Your task to perform on an android device: Look up the best rated desk lamps on IKEA Image 0: 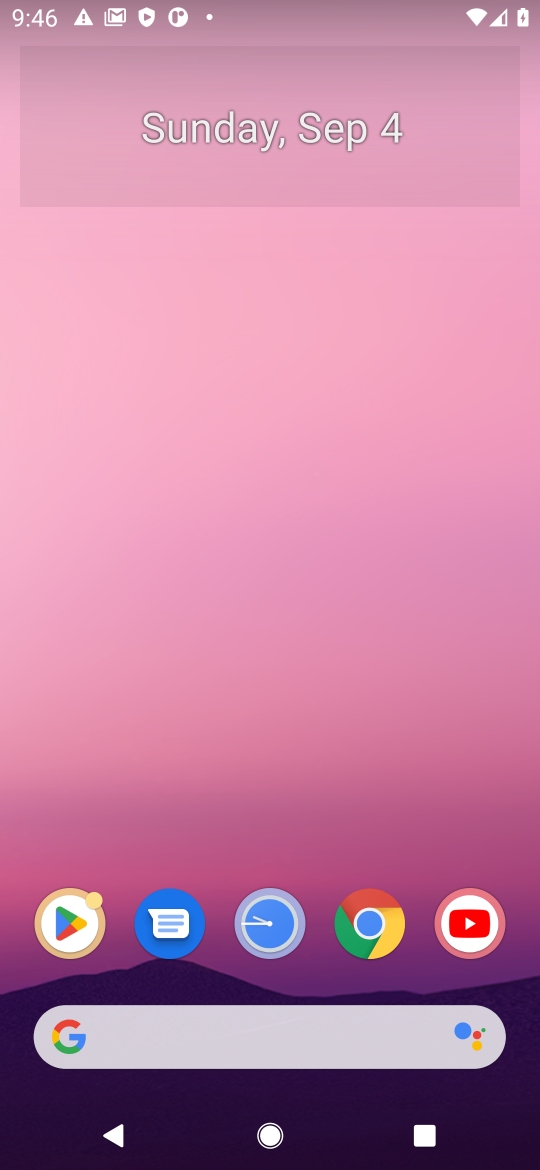
Step 0: click (348, 1036)
Your task to perform on an android device: Look up the best rated desk lamps on IKEA Image 1: 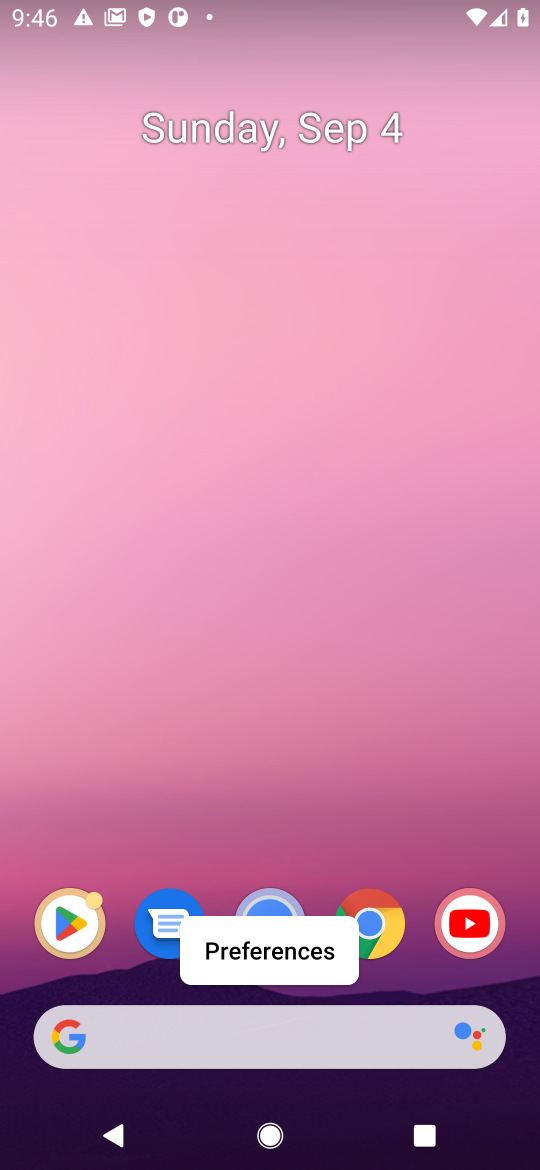
Step 1: click (364, 1029)
Your task to perform on an android device: Look up the best rated desk lamps on IKEA Image 2: 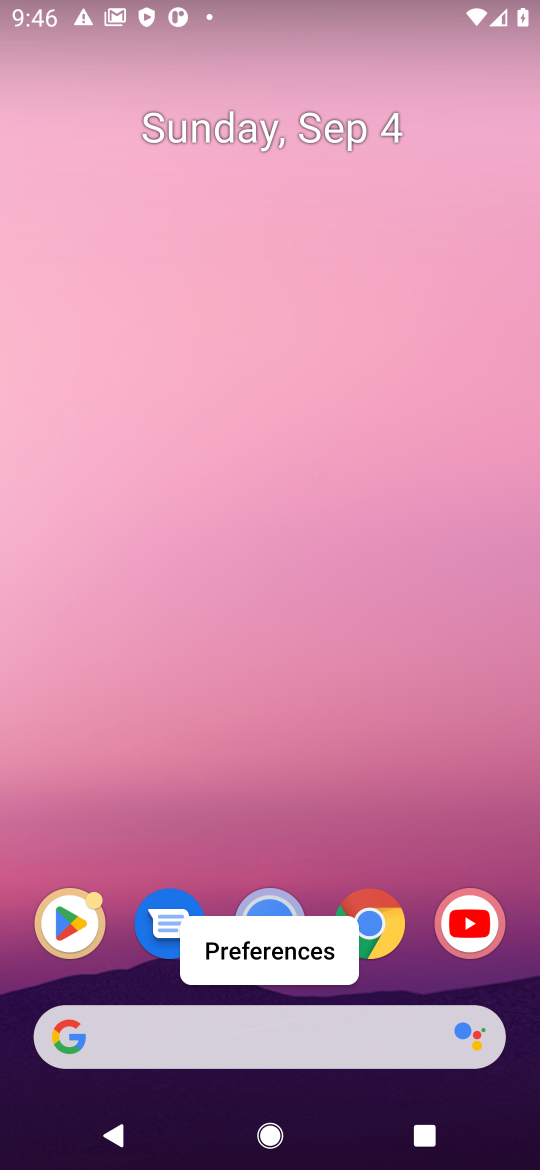
Step 2: drag from (508, 384) to (508, 40)
Your task to perform on an android device: Look up the best rated desk lamps on IKEA Image 3: 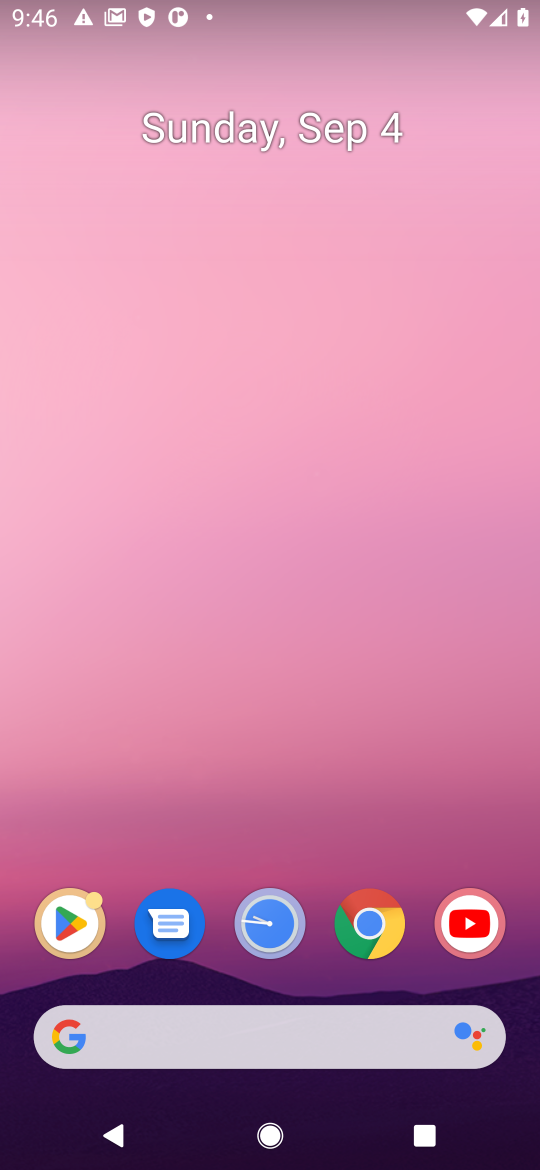
Step 3: drag from (472, 581) to (474, 88)
Your task to perform on an android device: Look up the best rated desk lamps on IKEA Image 4: 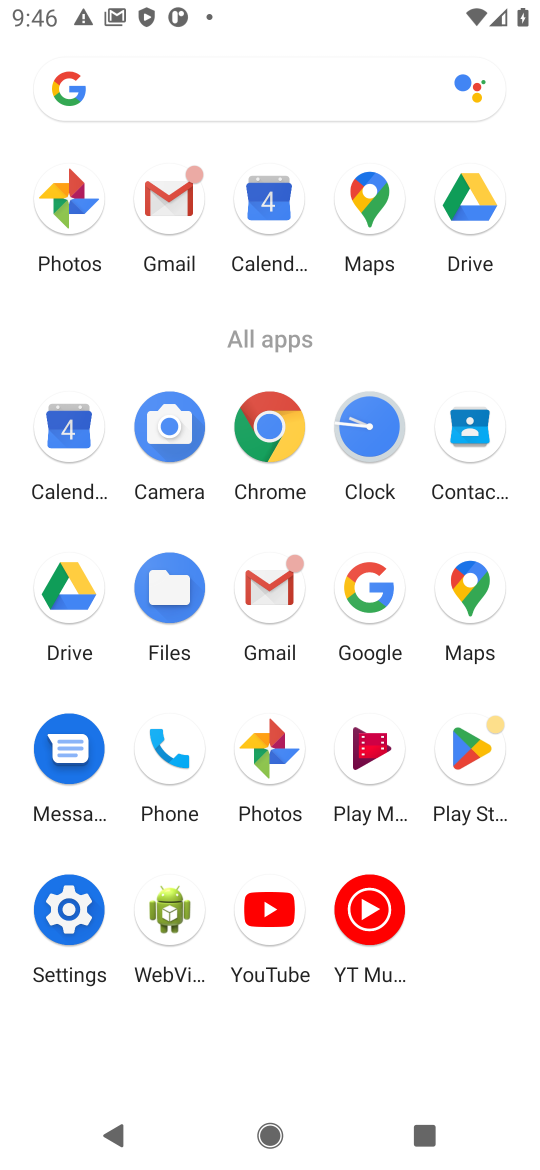
Step 4: click (368, 576)
Your task to perform on an android device: Look up the best rated desk lamps on IKEA Image 5: 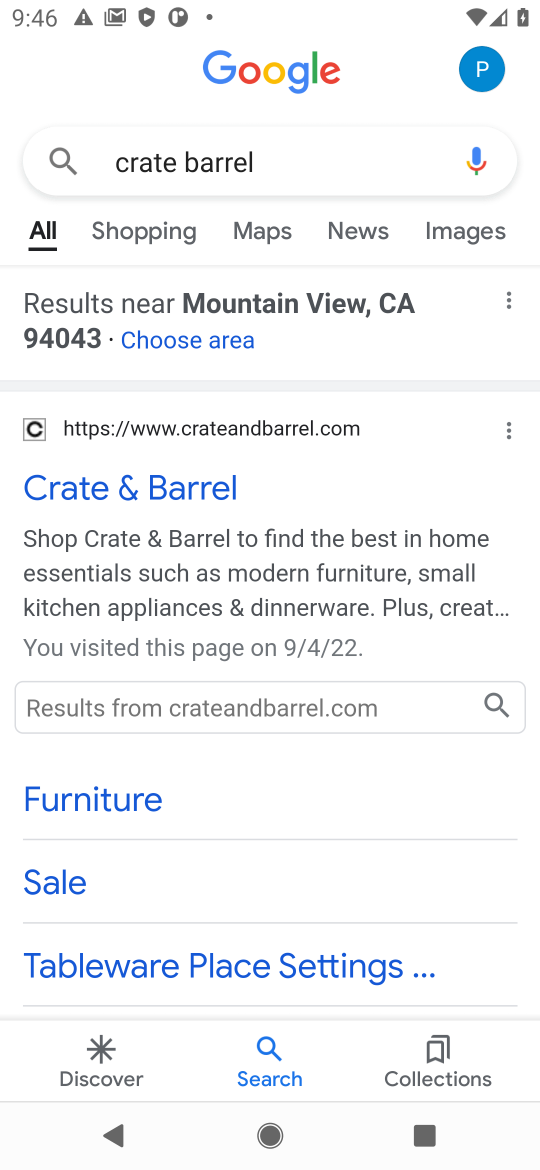
Step 5: click (288, 157)
Your task to perform on an android device: Look up the best rated desk lamps on IKEA Image 6: 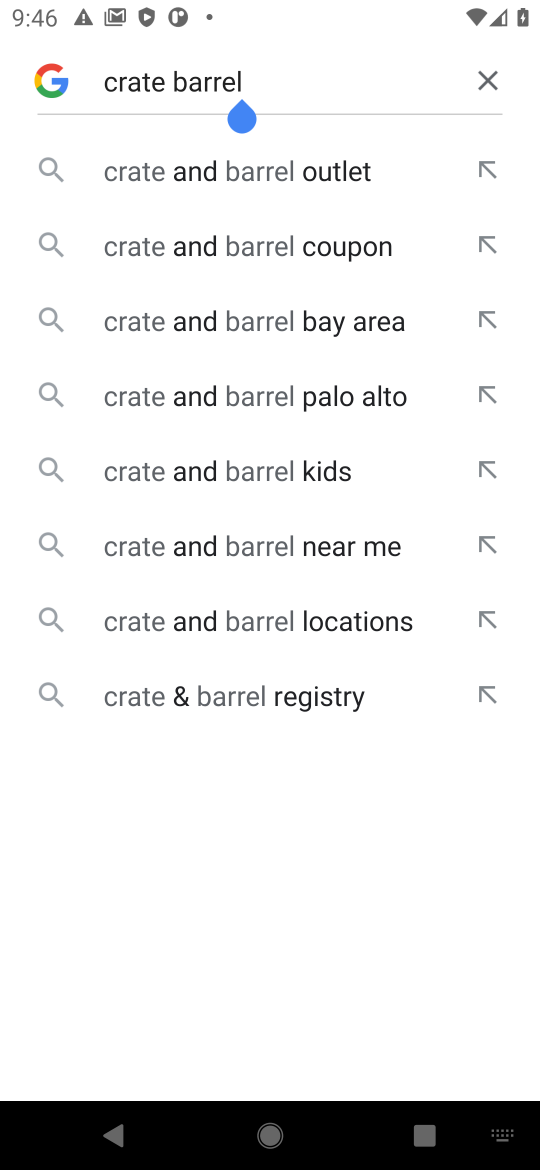
Step 6: click (488, 72)
Your task to perform on an android device: Look up the best rated desk lamps on IKEA Image 7: 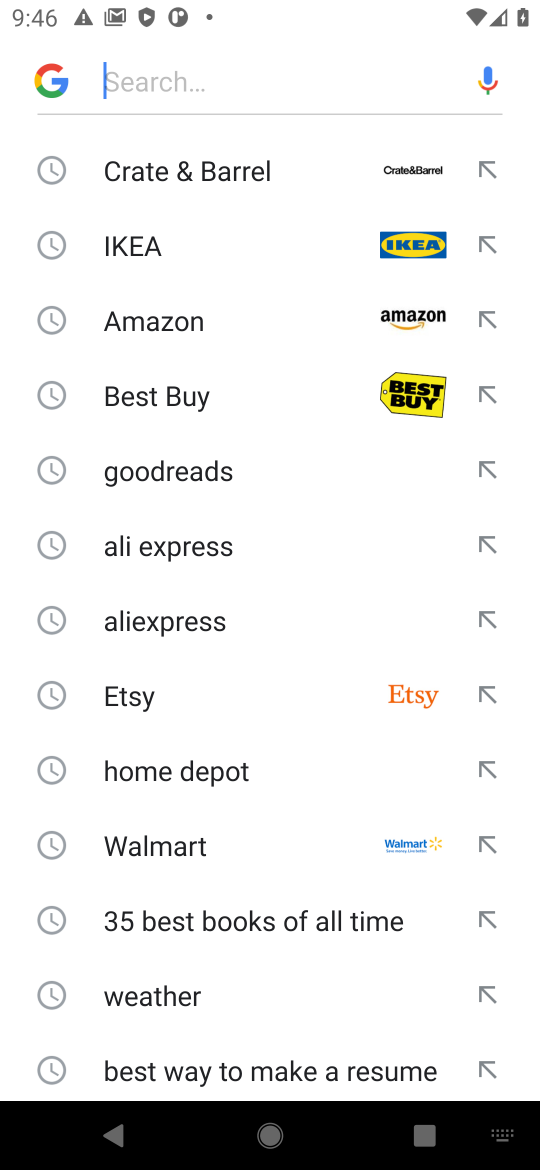
Step 7: click (134, 246)
Your task to perform on an android device: Look up the best rated desk lamps on IKEA Image 8: 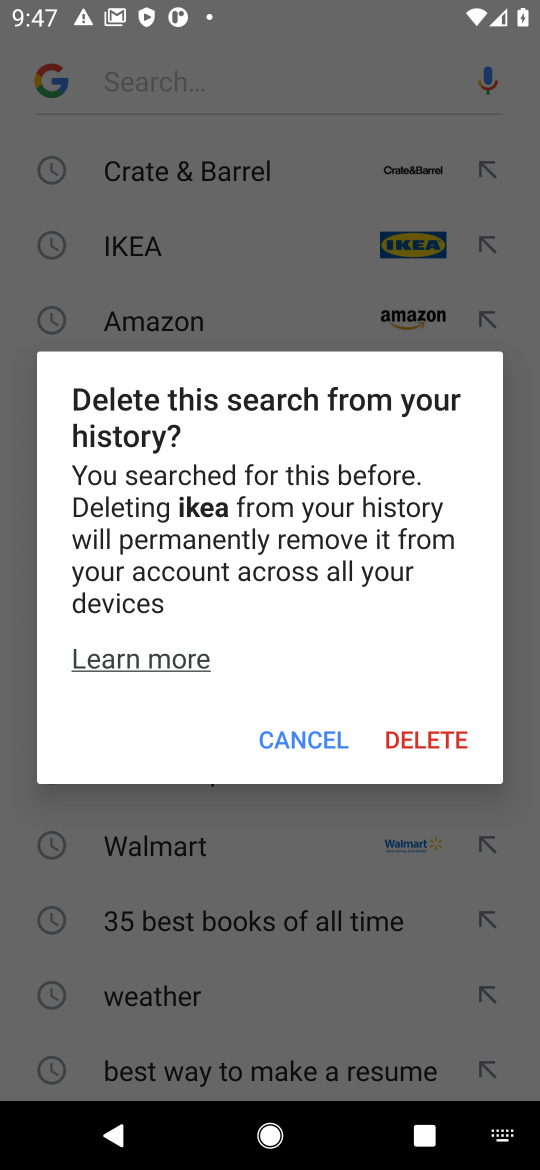
Step 8: click (314, 743)
Your task to perform on an android device: Look up the best rated desk lamps on IKEA Image 9: 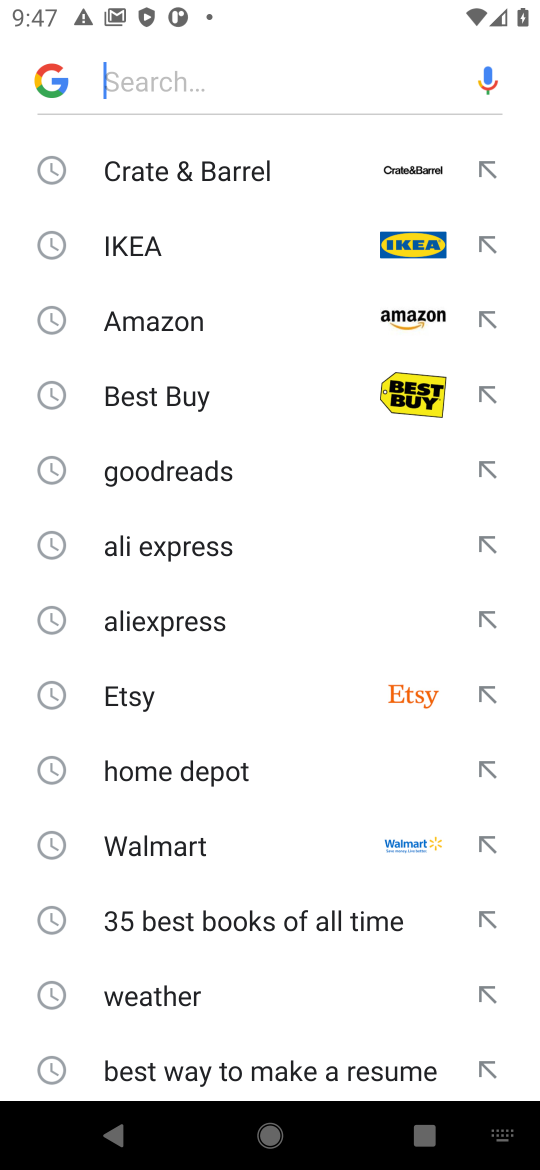
Step 9: click (146, 234)
Your task to perform on an android device: Look up the best rated desk lamps on IKEA Image 10: 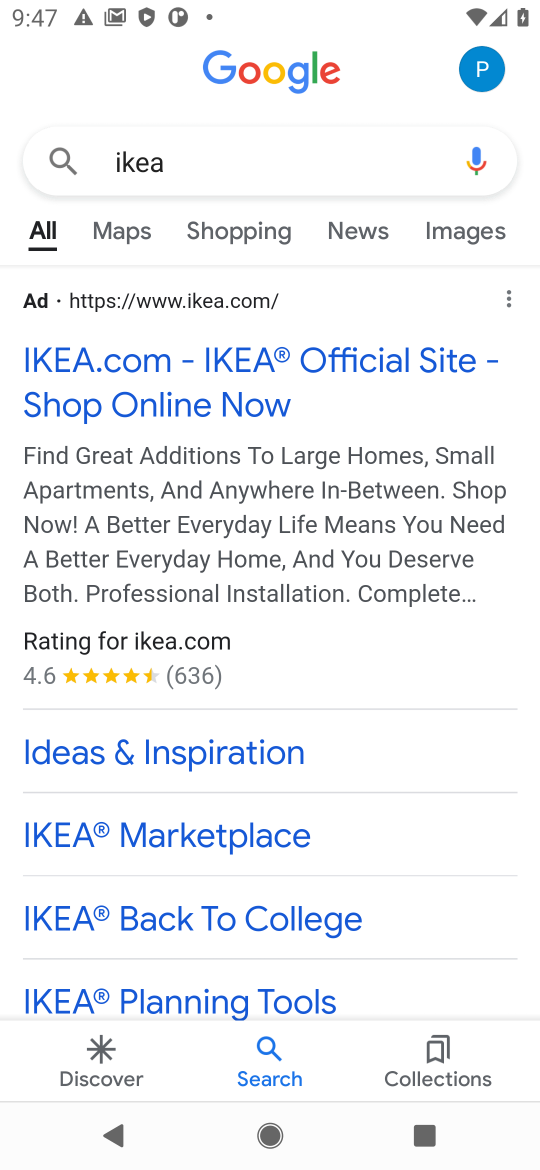
Step 10: click (198, 374)
Your task to perform on an android device: Look up the best rated desk lamps on IKEA Image 11: 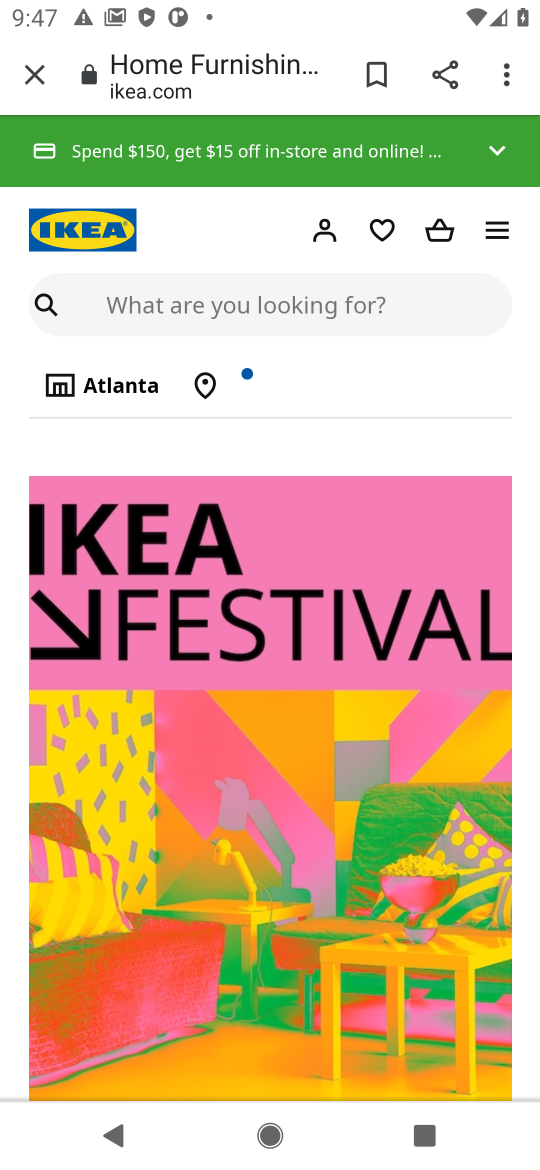
Step 11: click (261, 295)
Your task to perform on an android device: Look up the best rated desk lamps on IKEA Image 12: 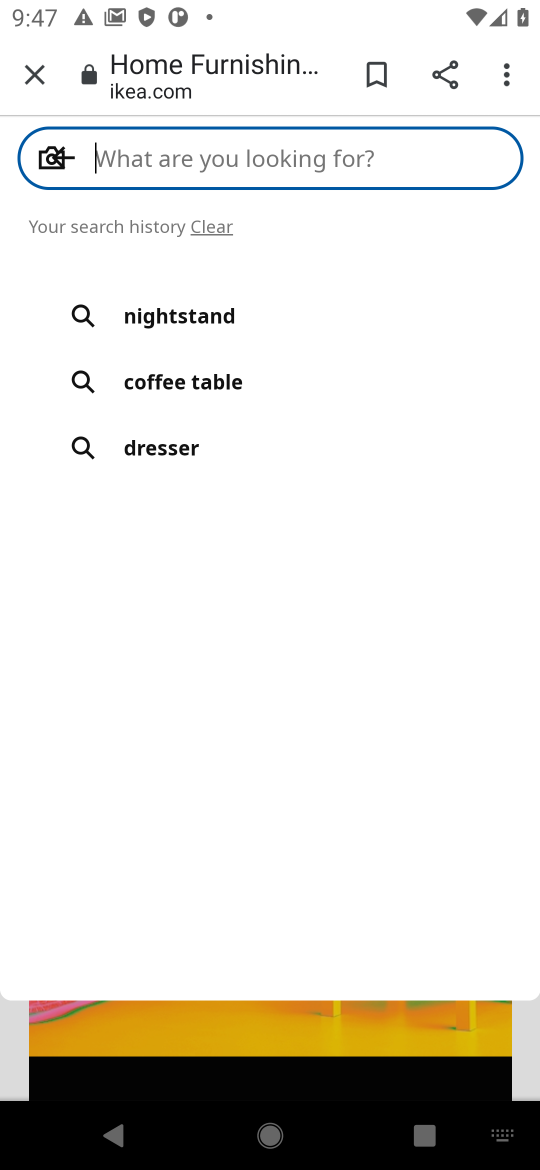
Step 12: press enter
Your task to perform on an android device: Look up the best rated desk lamps on IKEA Image 13: 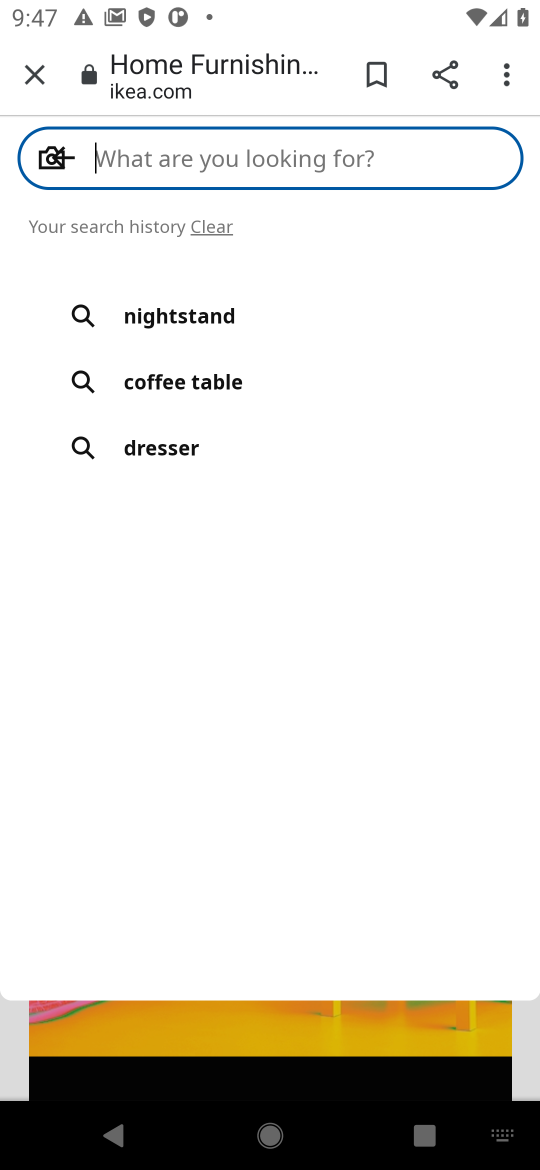
Step 13: type "best rated desk lamps"
Your task to perform on an android device: Look up the best rated desk lamps on IKEA Image 14: 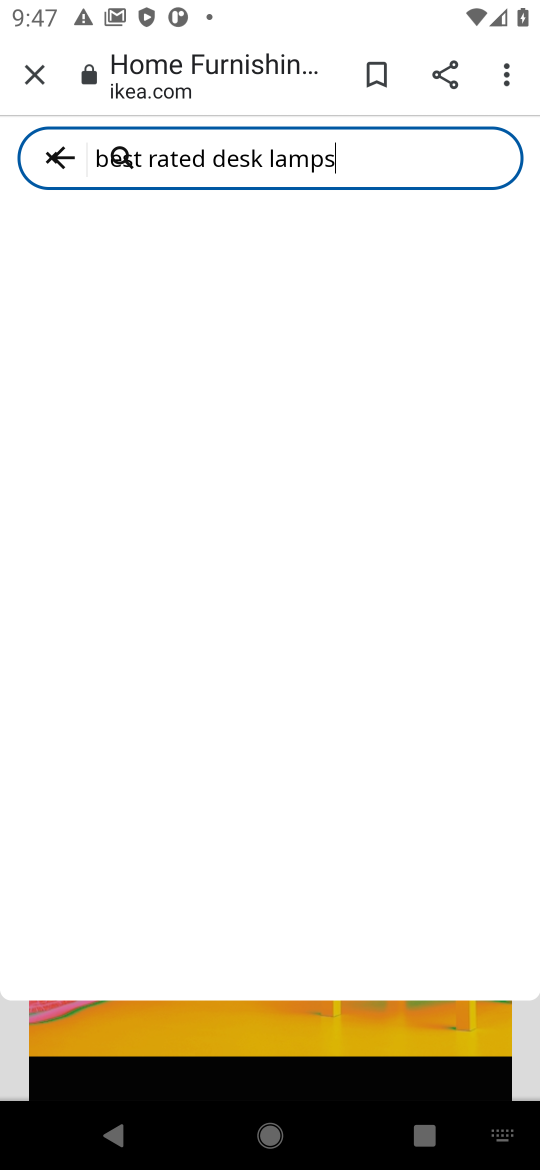
Step 14: click (51, 152)
Your task to perform on an android device: Look up the best rated desk lamps on IKEA Image 15: 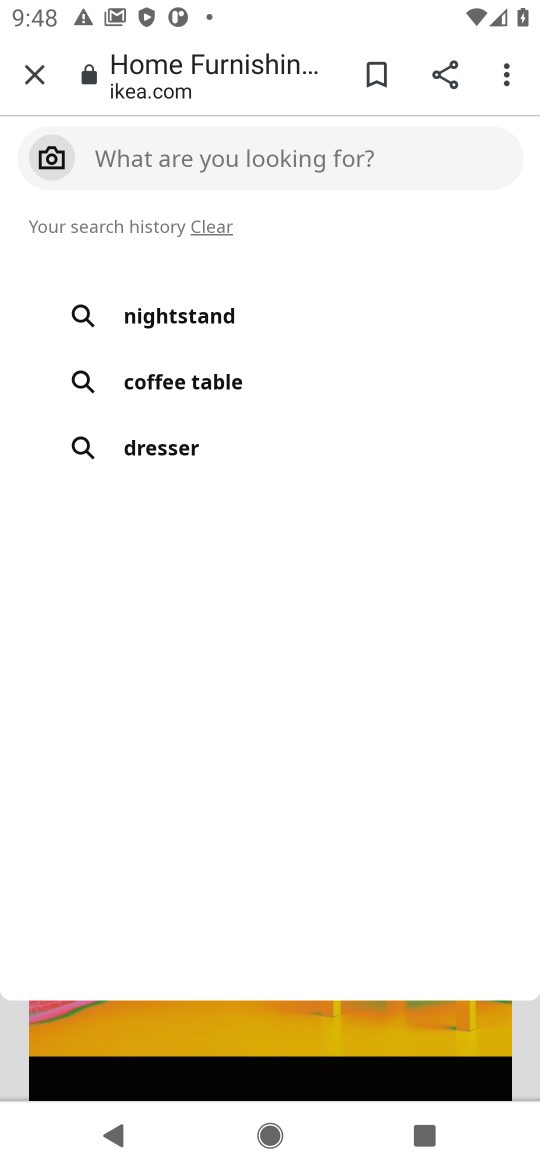
Step 15: task complete